Your task to perform on an android device: Open Google Maps and go to "Timeline" Image 0: 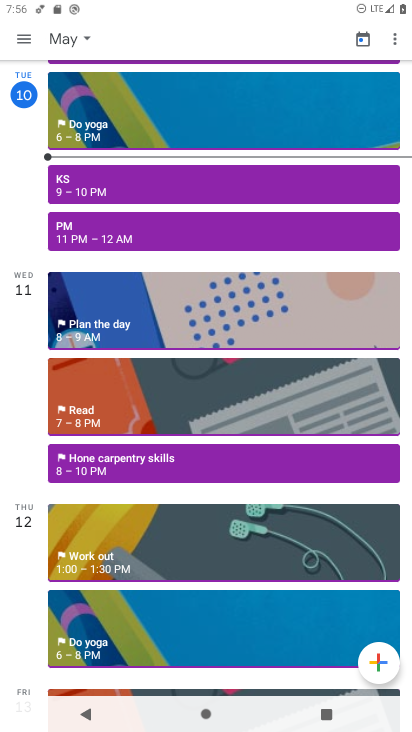
Step 0: press home button
Your task to perform on an android device: Open Google Maps and go to "Timeline" Image 1: 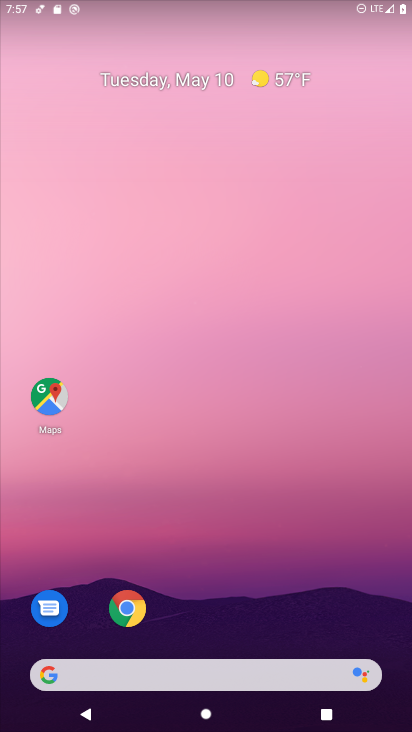
Step 1: drag from (337, 617) to (183, 30)
Your task to perform on an android device: Open Google Maps and go to "Timeline" Image 2: 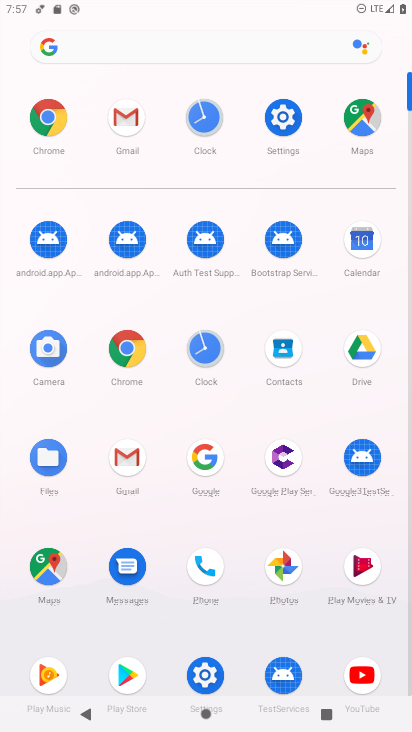
Step 2: click (43, 557)
Your task to perform on an android device: Open Google Maps and go to "Timeline" Image 3: 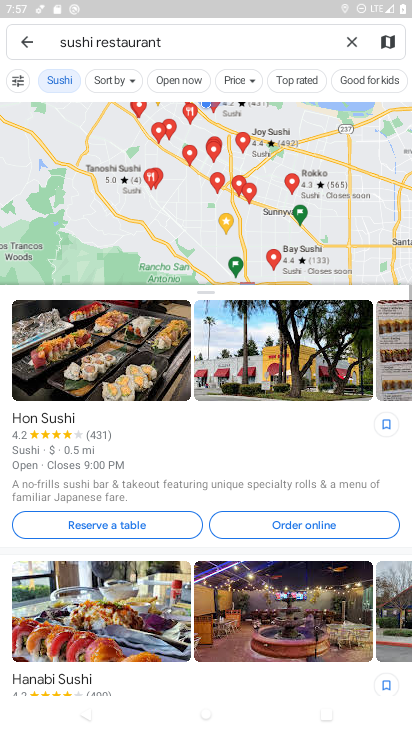
Step 3: click (354, 42)
Your task to perform on an android device: Open Google Maps and go to "Timeline" Image 4: 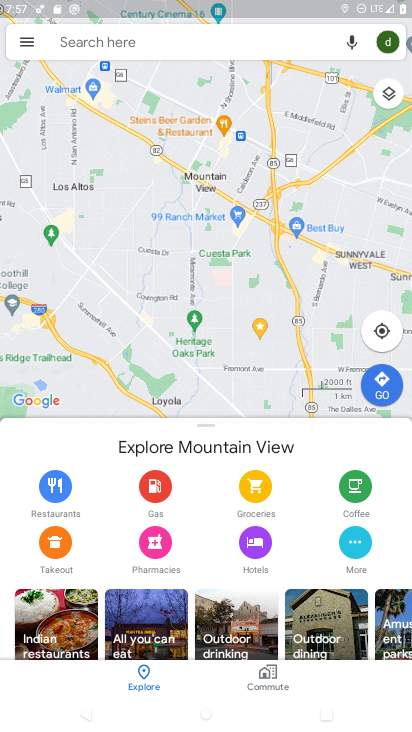
Step 4: click (28, 41)
Your task to perform on an android device: Open Google Maps and go to "Timeline" Image 5: 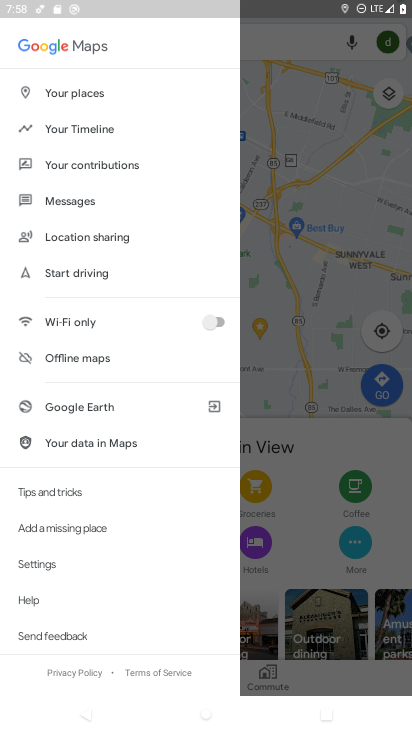
Step 5: click (103, 133)
Your task to perform on an android device: Open Google Maps and go to "Timeline" Image 6: 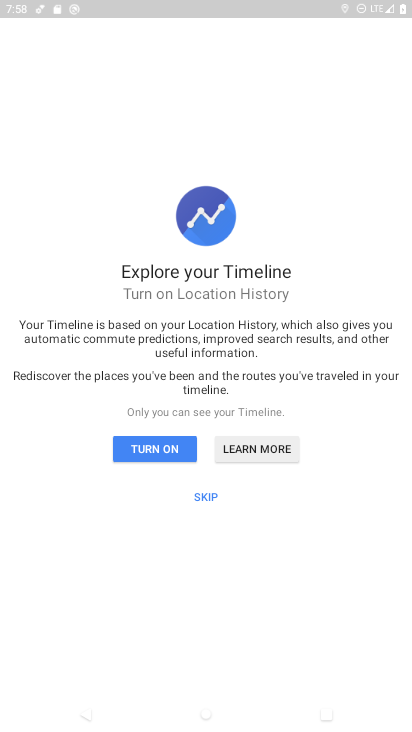
Step 6: task complete